Your task to perform on an android device: Open Chrome and go to the settings page Image 0: 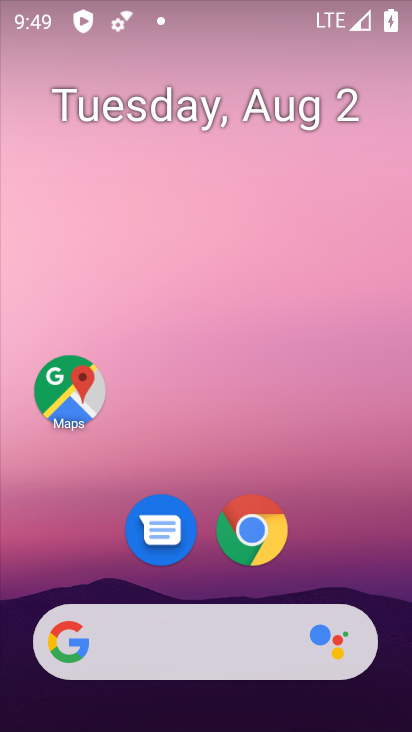
Step 0: click (253, 534)
Your task to perform on an android device: Open Chrome and go to the settings page Image 1: 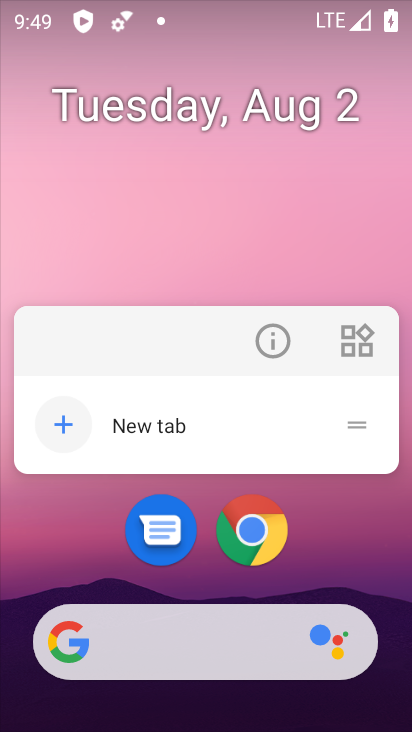
Step 1: click (258, 517)
Your task to perform on an android device: Open Chrome and go to the settings page Image 2: 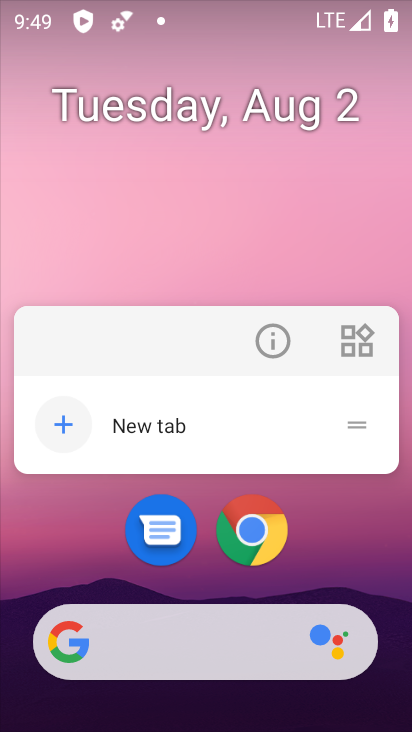
Step 2: click (256, 527)
Your task to perform on an android device: Open Chrome and go to the settings page Image 3: 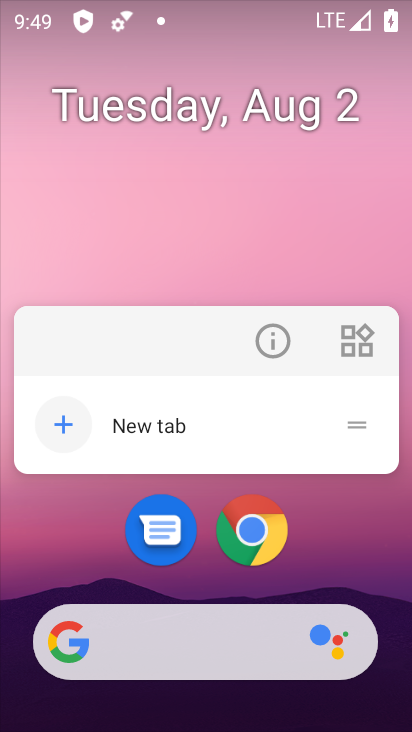
Step 3: click (256, 527)
Your task to perform on an android device: Open Chrome and go to the settings page Image 4: 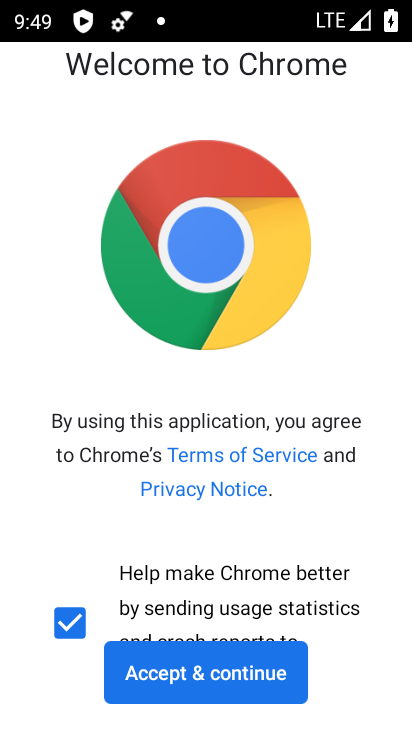
Step 4: click (245, 658)
Your task to perform on an android device: Open Chrome and go to the settings page Image 5: 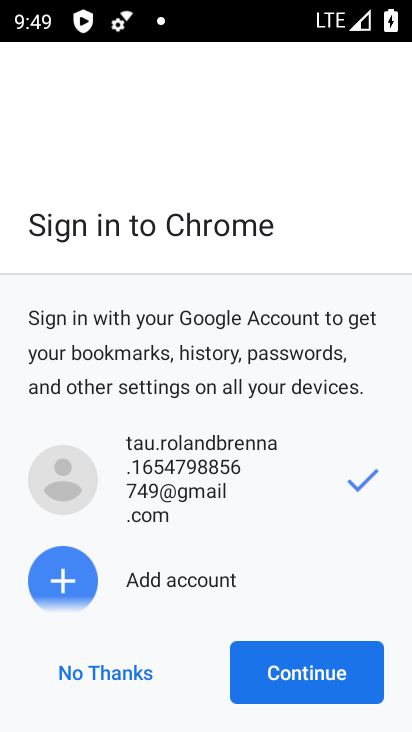
Step 5: click (330, 673)
Your task to perform on an android device: Open Chrome and go to the settings page Image 6: 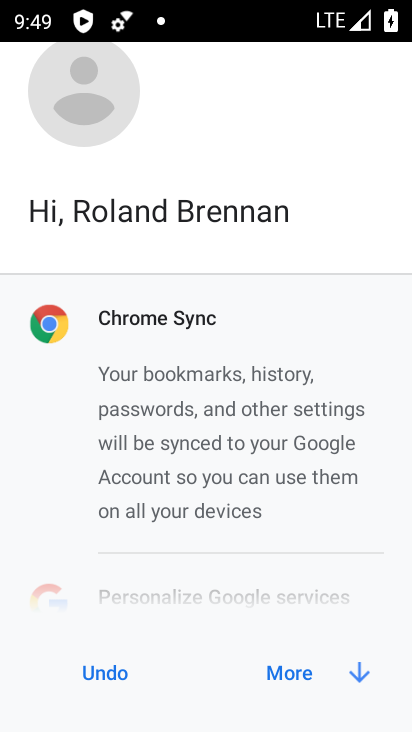
Step 6: click (330, 673)
Your task to perform on an android device: Open Chrome and go to the settings page Image 7: 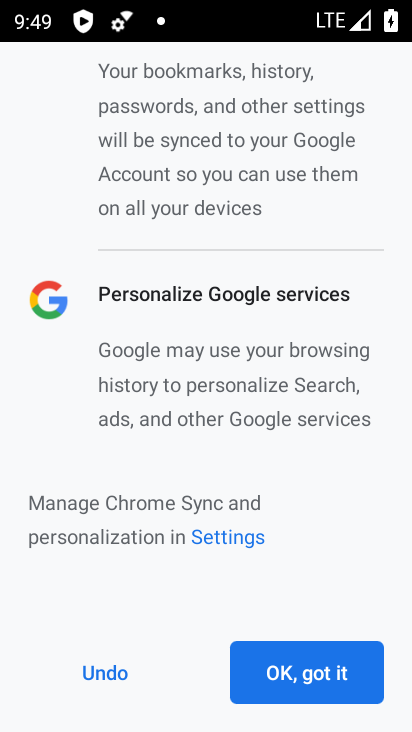
Step 7: click (330, 673)
Your task to perform on an android device: Open Chrome and go to the settings page Image 8: 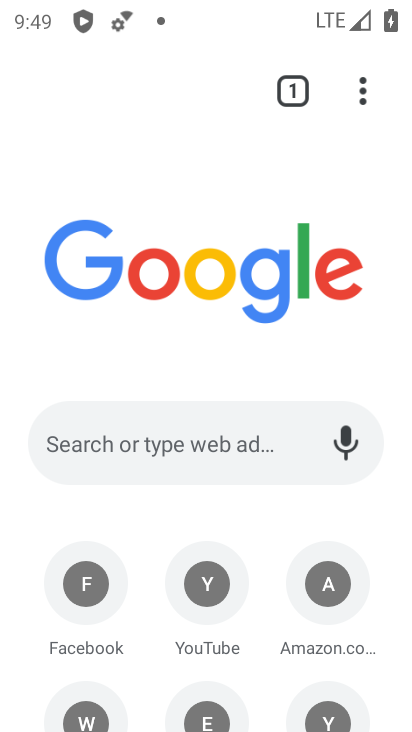
Step 8: task complete